Your task to perform on an android device: Go to eBay Image 0: 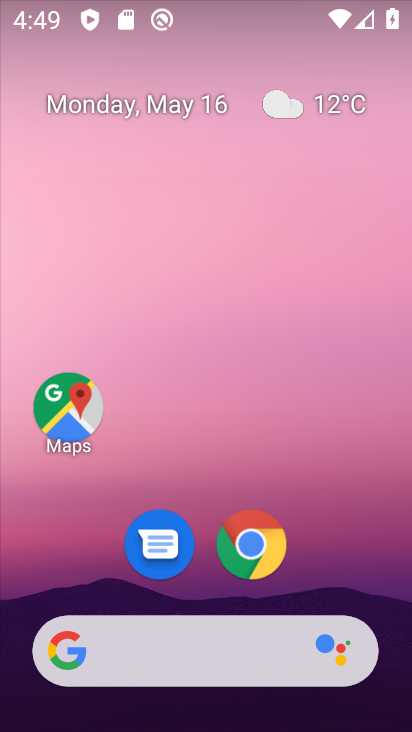
Step 0: drag from (352, 600) to (253, 73)
Your task to perform on an android device: Go to eBay Image 1: 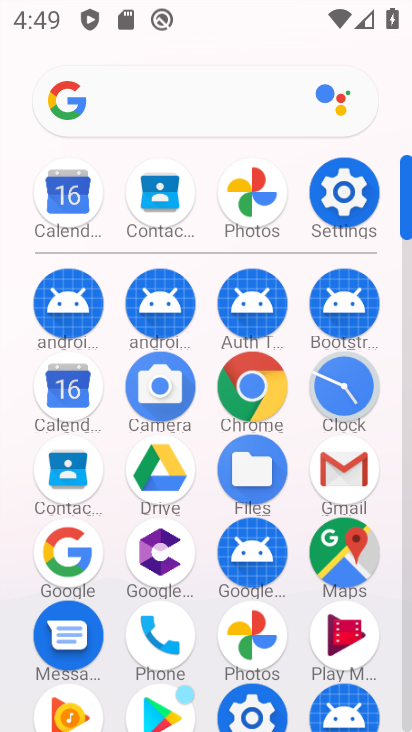
Step 1: click (59, 550)
Your task to perform on an android device: Go to eBay Image 2: 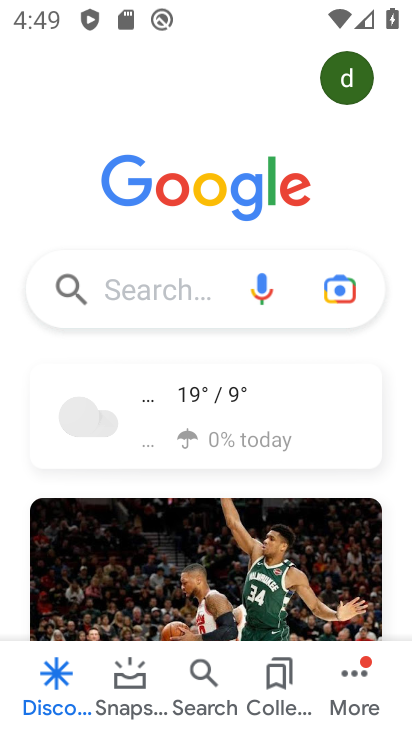
Step 2: click (158, 288)
Your task to perform on an android device: Go to eBay Image 3: 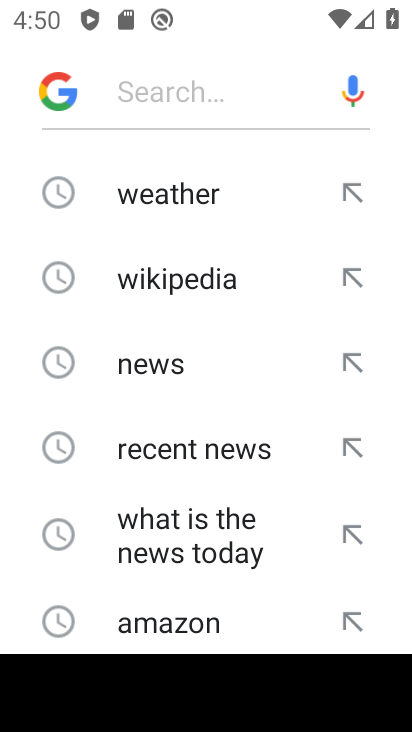
Step 3: type "eBay"
Your task to perform on an android device: Go to eBay Image 4: 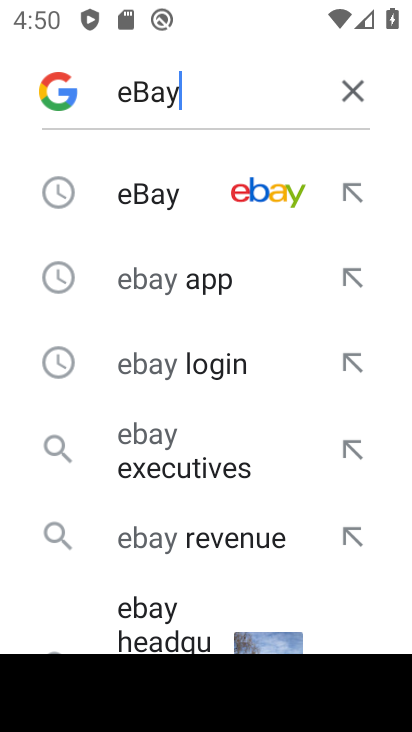
Step 4: click (166, 198)
Your task to perform on an android device: Go to eBay Image 5: 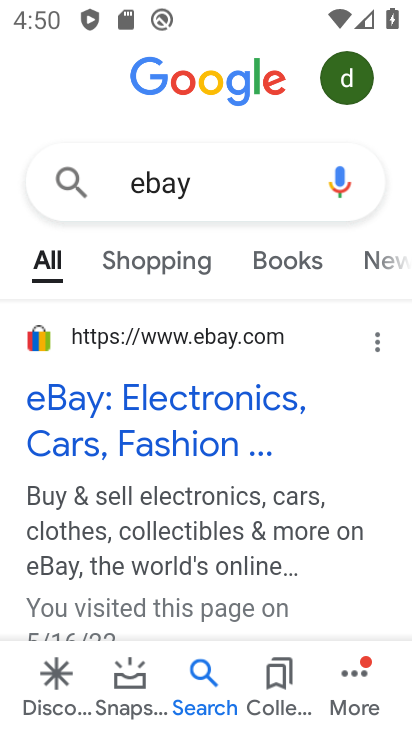
Step 5: click (145, 399)
Your task to perform on an android device: Go to eBay Image 6: 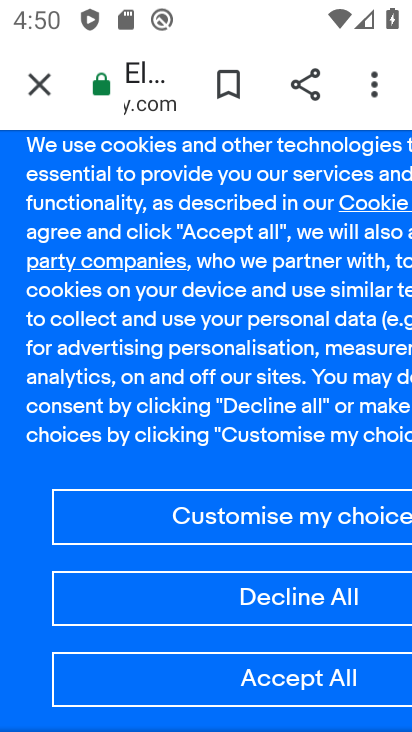
Step 6: task complete